Your task to perform on an android device: Is it going to rain today? Image 0: 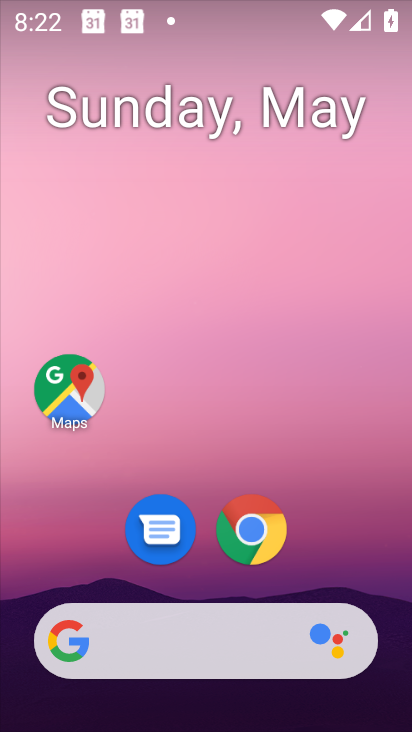
Step 0: click (232, 645)
Your task to perform on an android device: Is it going to rain today? Image 1: 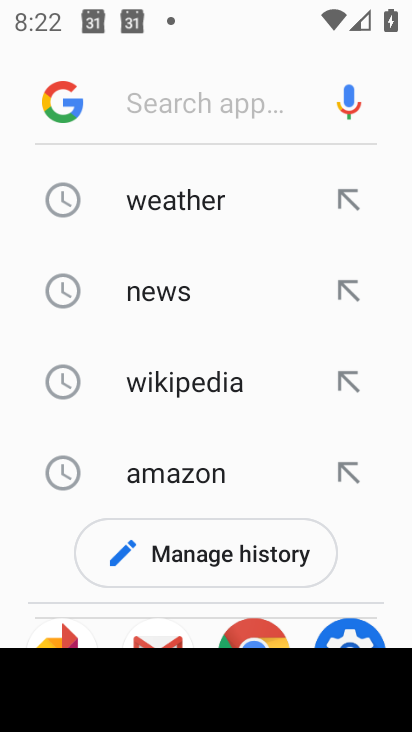
Step 1: click (182, 218)
Your task to perform on an android device: Is it going to rain today? Image 2: 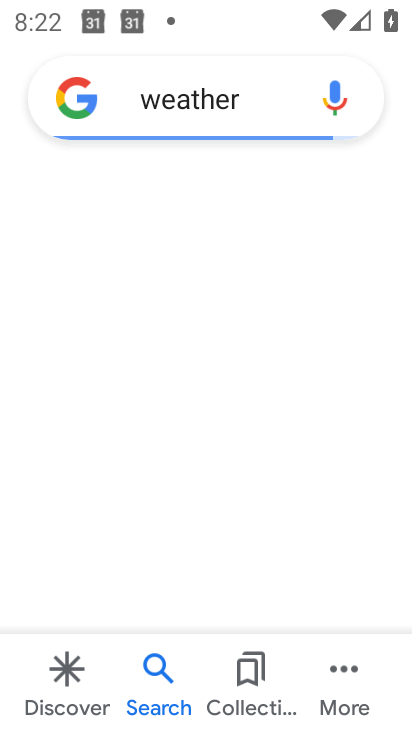
Step 2: task complete